Your task to perform on an android device: Search for seafood restaurants on Google Maps Image 0: 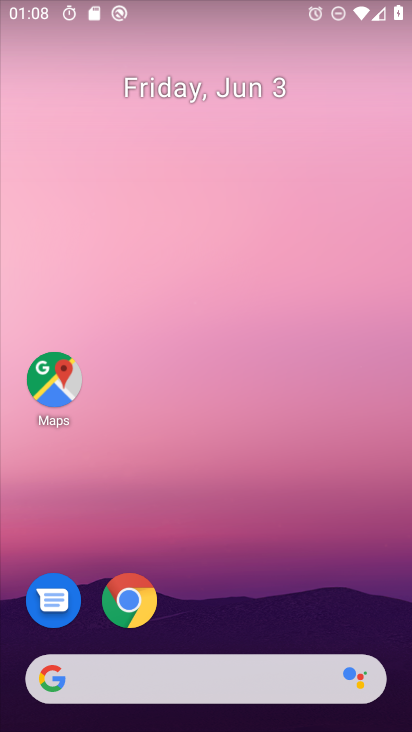
Step 0: drag from (233, 587) to (212, 87)
Your task to perform on an android device: Search for seafood restaurants on Google Maps Image 1: 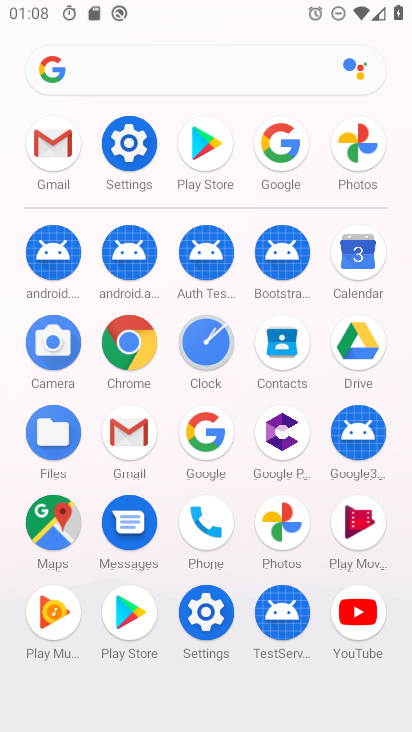
Step 1: click (50, 524)
Your task to perform on an android device: Search for seafood restaurants on Google Maps Image 2: 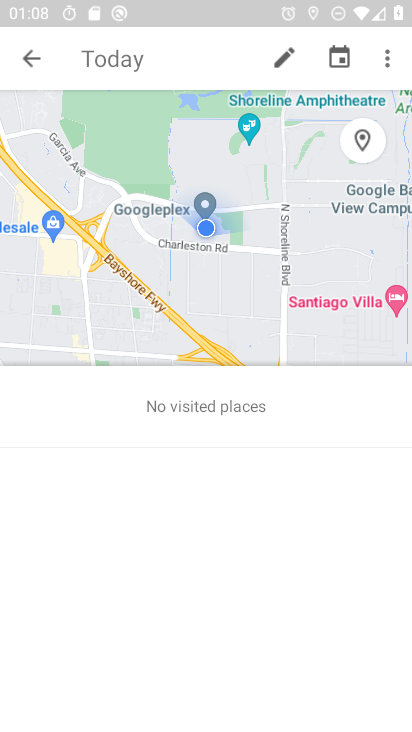
Step 2: press back button
Your task to perform on an android device: Search for seafood restaurants on Google Maps Image 3: 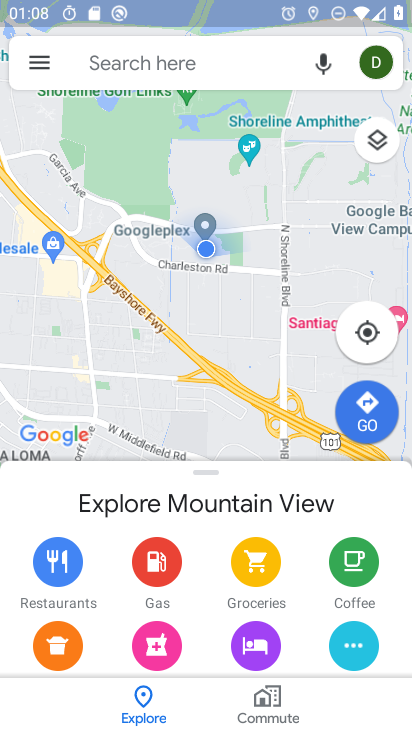
Step 3: click (185, 69)
Your task to perform on an android device: Search for seafood restaurants on Google Maps Image 4: 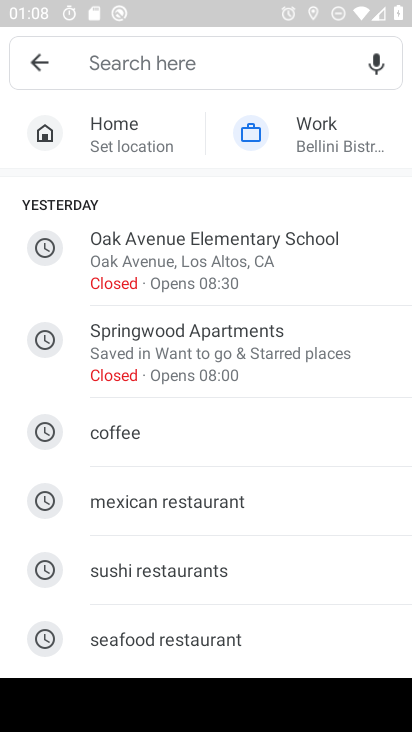
Step 4: drag from (183, 461) to (144, 276)
Your task to perform on an android device: Search for seafood restaurants on Google Maps Image 5: 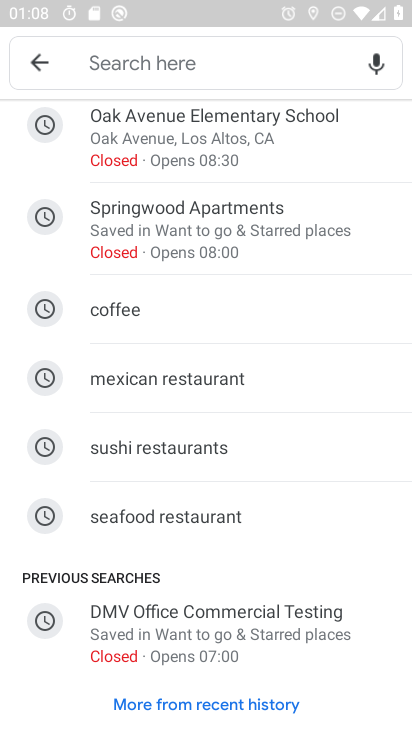
Step 5: click (160, 515)
Your task to perform on an android device: Search for seafood restaurants on Google Maps Image 6: 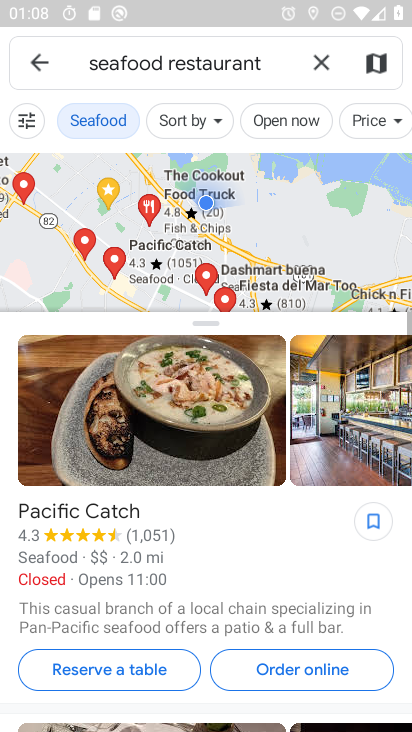
Step 6: task complete